Your task to perform on an android device: add a contact Image 0: 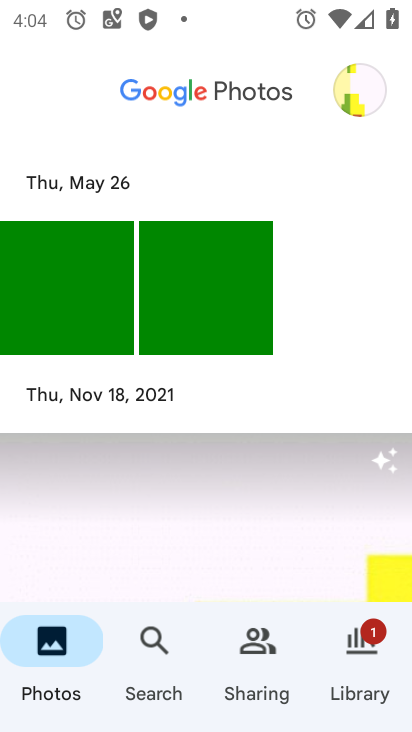
Step 0: press home button
Your task to perform on an android device: add a contact Image 1: 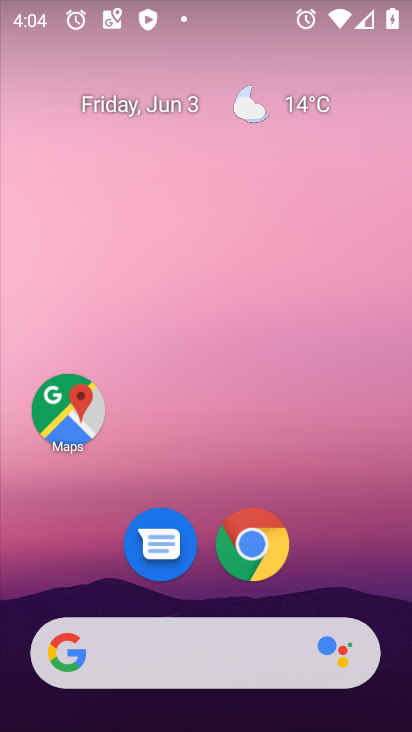
Step 1: drag from (402, 658) to (282, 26)
Your task to perform on an android device: add a contact Image 2: 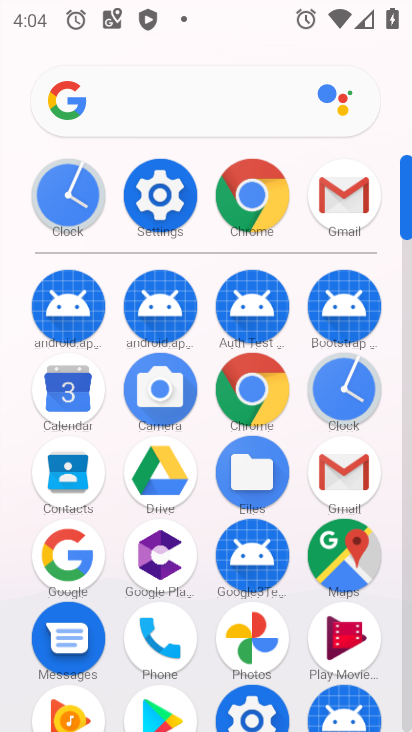
Step 2: click (404, 659)
Your task to perform on an android device: add a contact Image 3: 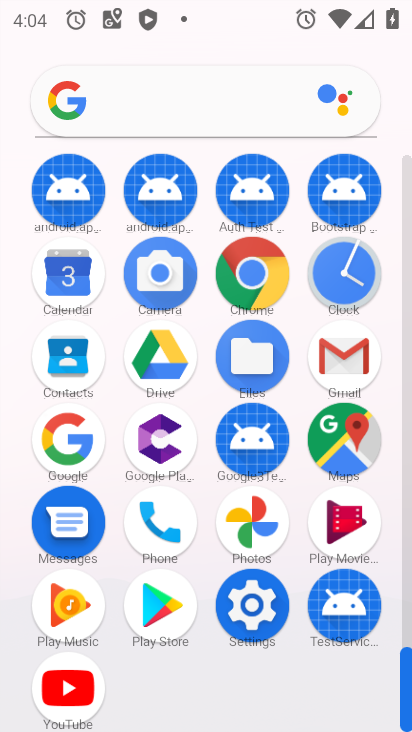
Step 3: click (66, 364)
Your task to perform on an android device: add a contact Image 4: 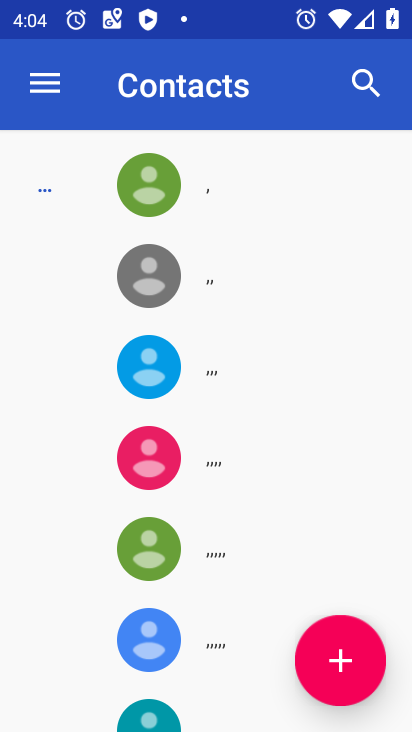
Step 4: click (340, 660)
Your task to perform on an android device: add a contact Image 5: 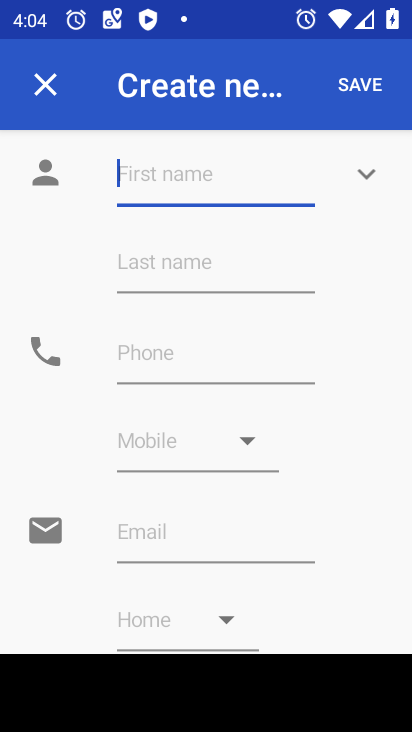
Step 5: type "kjyhgrtrsf"
Your task to perform on an android device: add a contact Image 6: 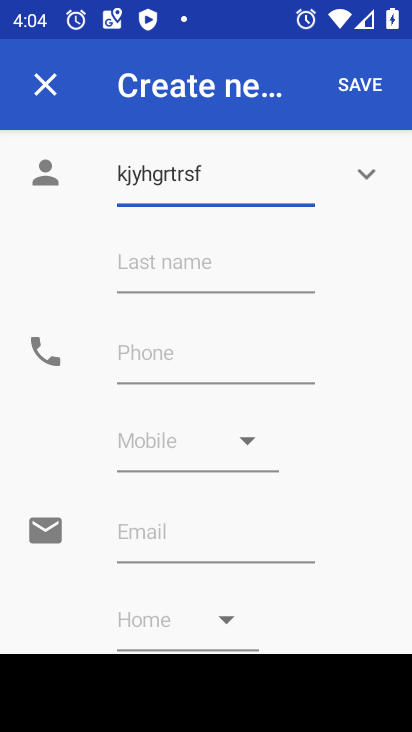
Step 6: click (174, 365)
Your task to perform on an android device: add a contact Image 7: 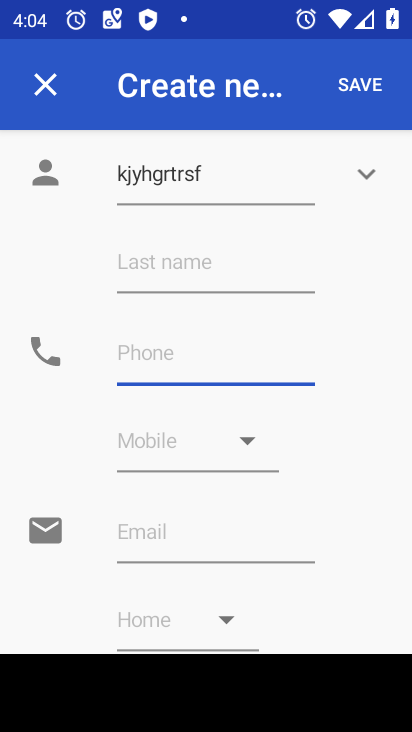
Step 7: type "98765456789"
Your task to perform on an android device: add a contact Image 8: 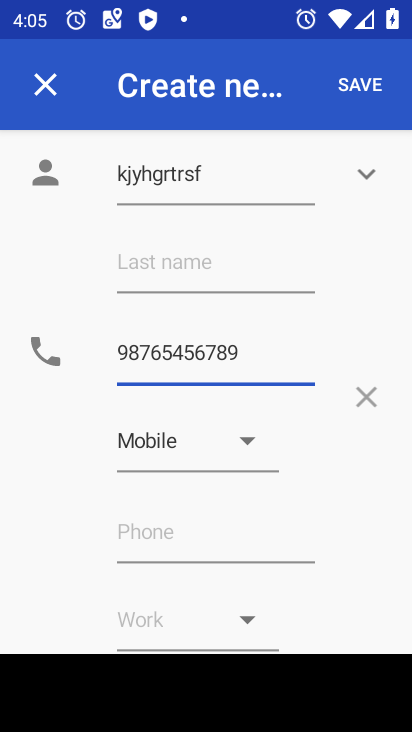
Step 8: click (357, 86)
Your task to perform on an android device: add a contact Image 9: 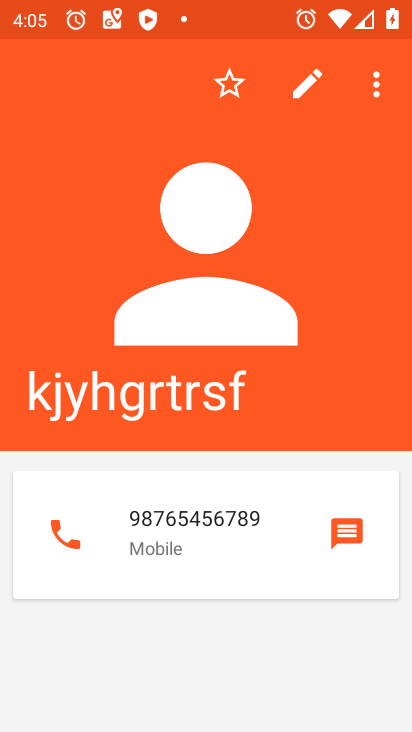
Step 9: task complete